Your task to perform on an android device: Open the Play Movies app and select the watchlist tab. Image 0: 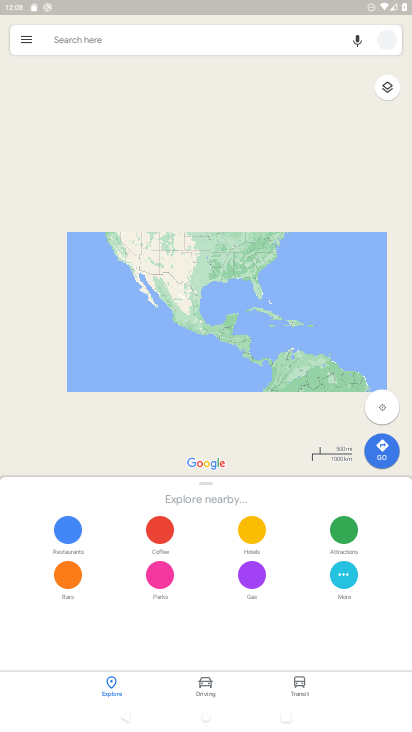
Step 0: press home button
Your task to perform on an android device: Open the Play Movies app and select the watchlist tab. Image 1: 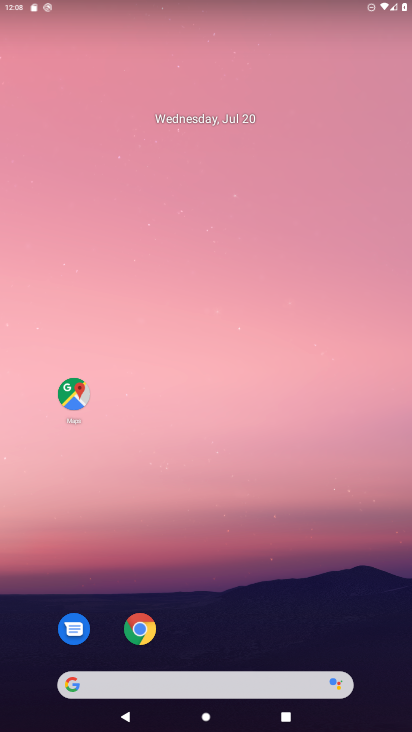
Step 1: drag from (178, 498) to (189, 192)
Your task to perform on an android device: Open the Play Movies app and select the watchlist tab. Image 2: 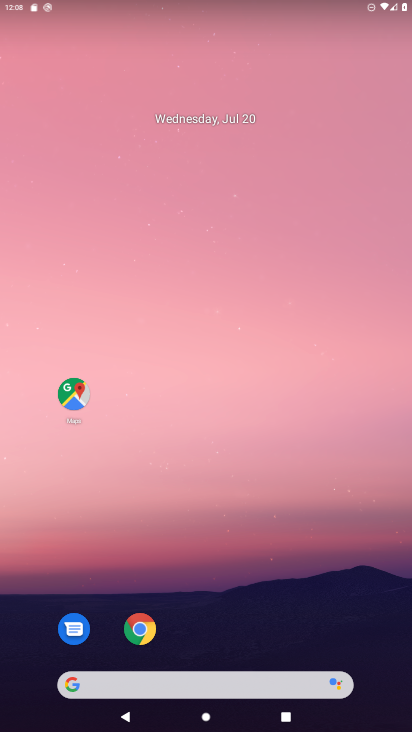
Step 2: drag from (197, 583) to (236, 116)
Your task to perform on an android device: Open the Play Movies app and select the watchlist tab. Image 3: 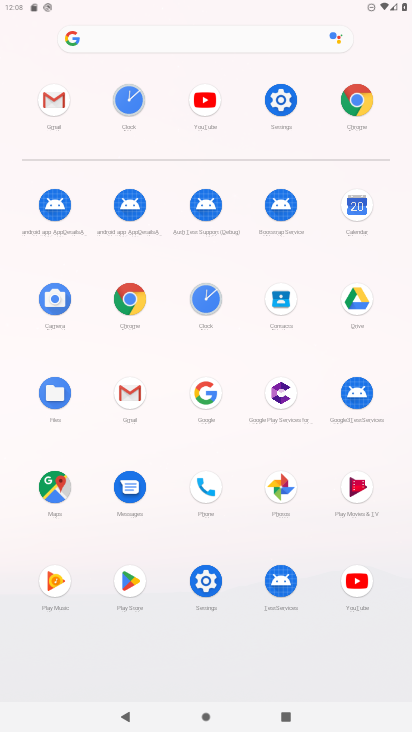
Step 3: click (348, 487)
Your task to perform on an android device: Open the Play Movies app and select the watchlist tab. Image 4: 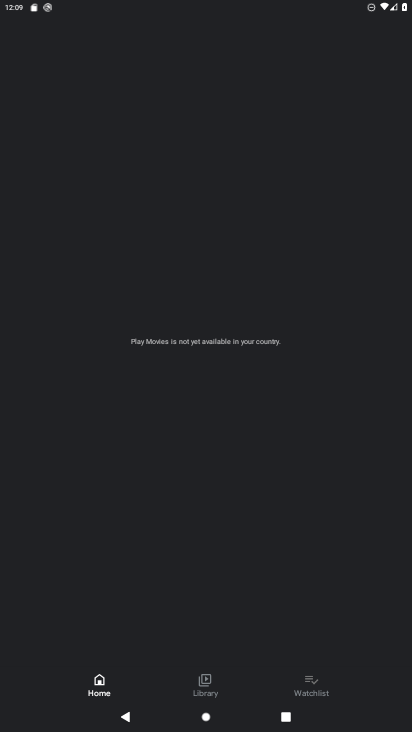
Step 4: click (309, 687)
Your task to perform on an android device: Open the Play Movies app and select the watchlist tab. Image 5: 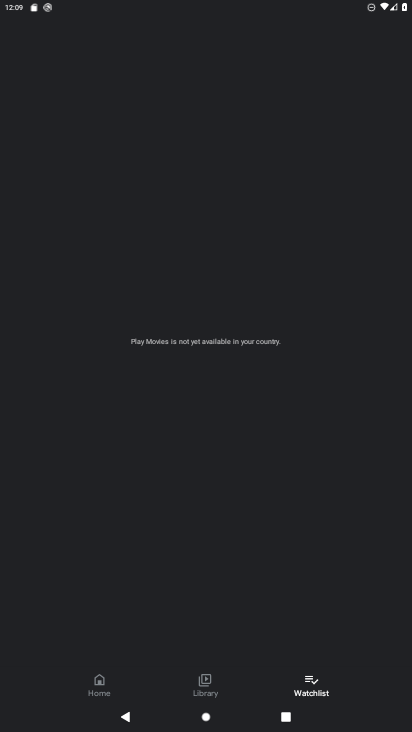
Step 5: task complete